Your task to perform on an android device: allow cookies in the chrome app Image 0: 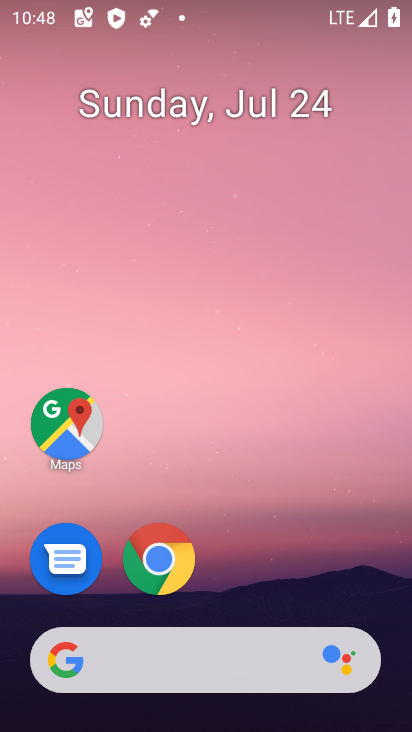
Step 0: click (160, 540)
Your task to perform on an android device: allow cookies in the chrome app Image 1: 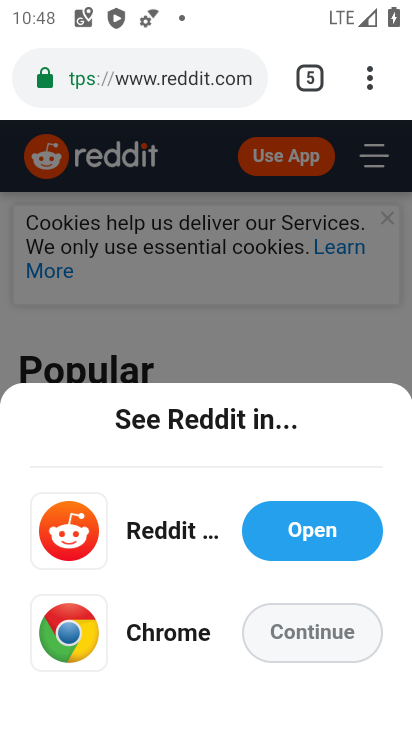
Step 1: drag from (368, 71) to (120, 619)
Your task to perform on an android device: allow cookies in the chrome app Image 2: 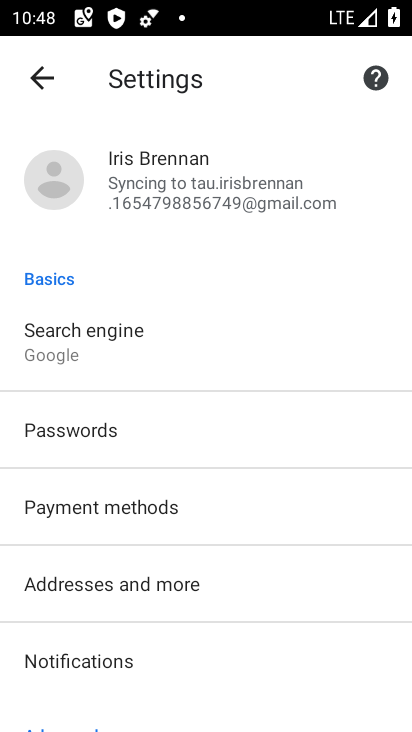
Step 2: drag from (127, 610) to (264, 4)
Your task to perform on an android device: allow cookies in the chrome app Image 3: 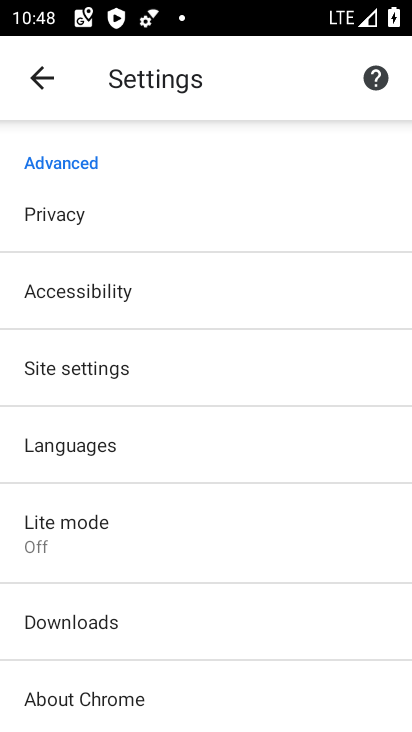
Step 3: click (99, 366)
Your task to perform on an android device: allow cookies in the chrome app Image 4: 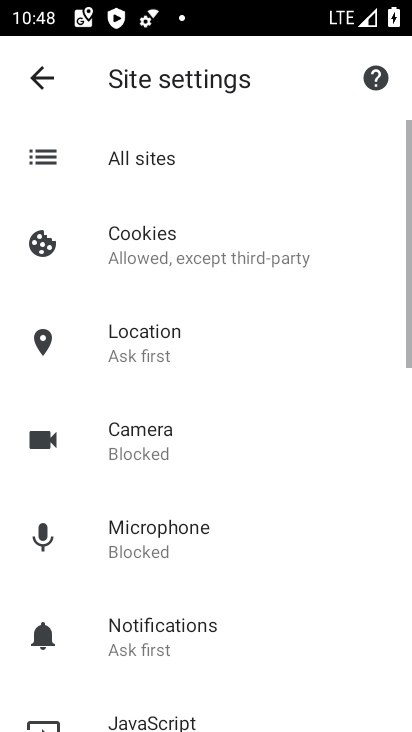
Step 4: click (140, 238)
Your task to perform on an android device: allow cookies in the chrome app Image 5: 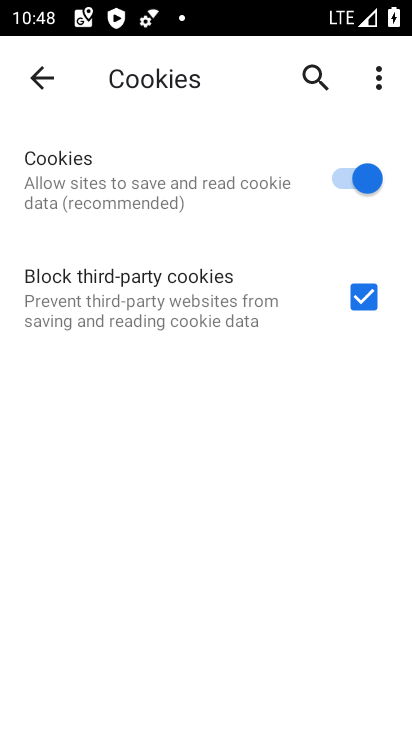
Step 5: task complete